Your task to perform on an android device: Open Google Chrome and open the bookmarks view Image 0: 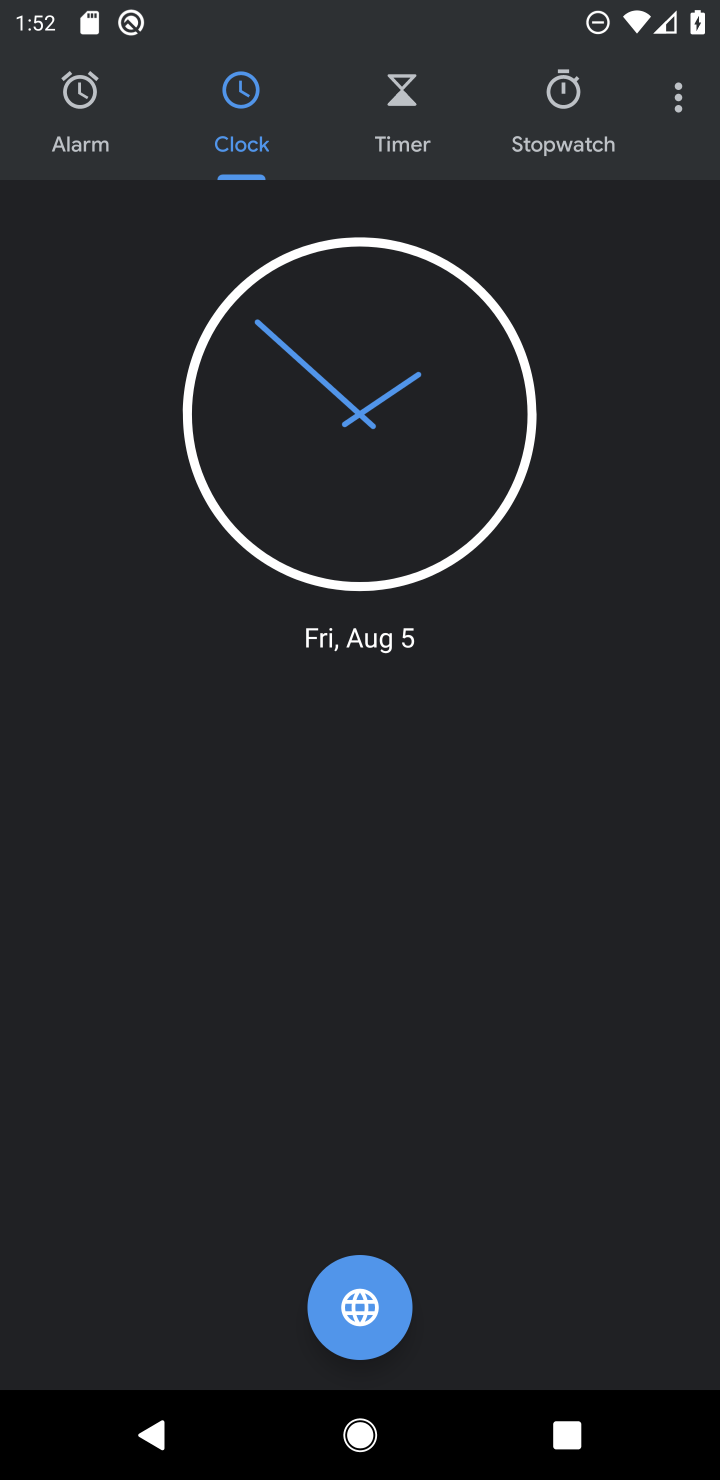
Step 0: press home button
Your task to perform on an android device: Open Google Chrome and open the bookmarks view Image 1: 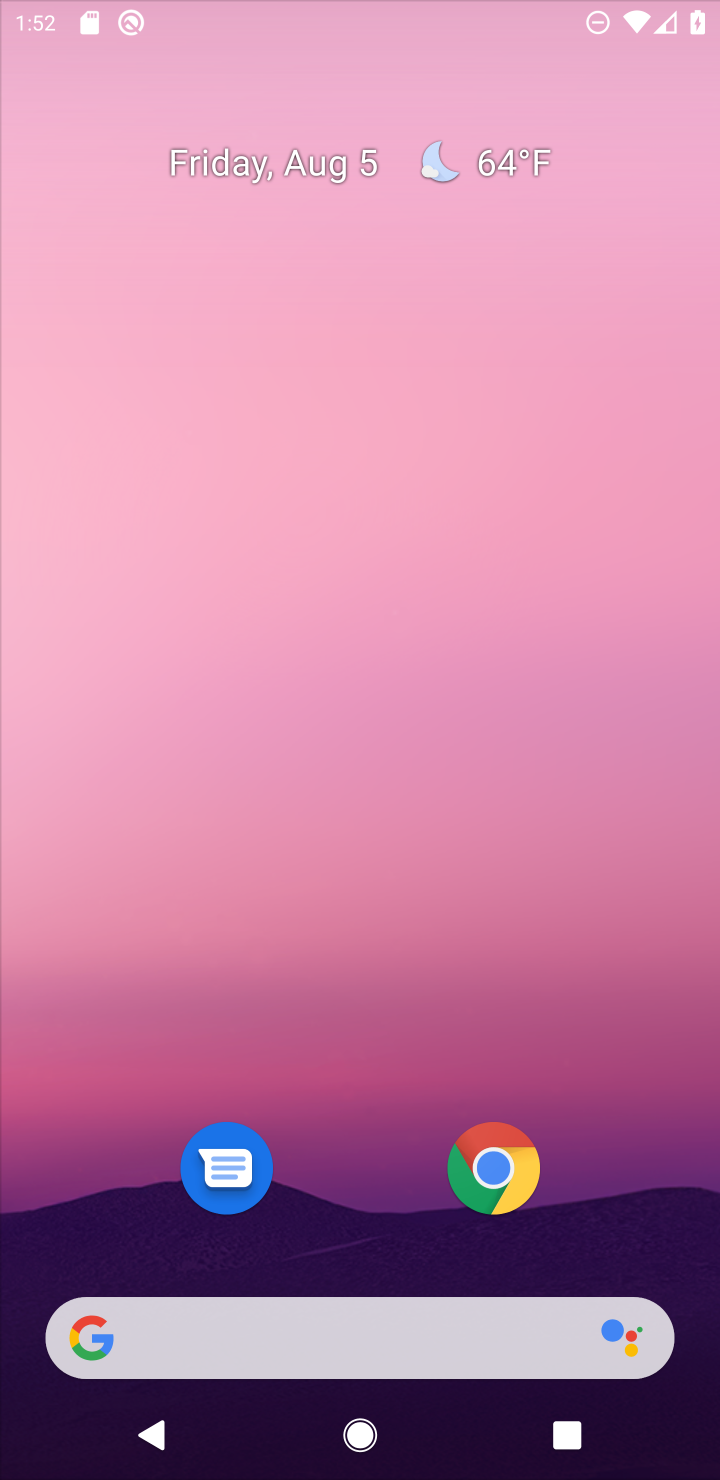
Step 1: drag from (656, 793) to (489, 30)
Your task to perform on an android device: Open Google Chrome and open the bookmarks view Image 2: 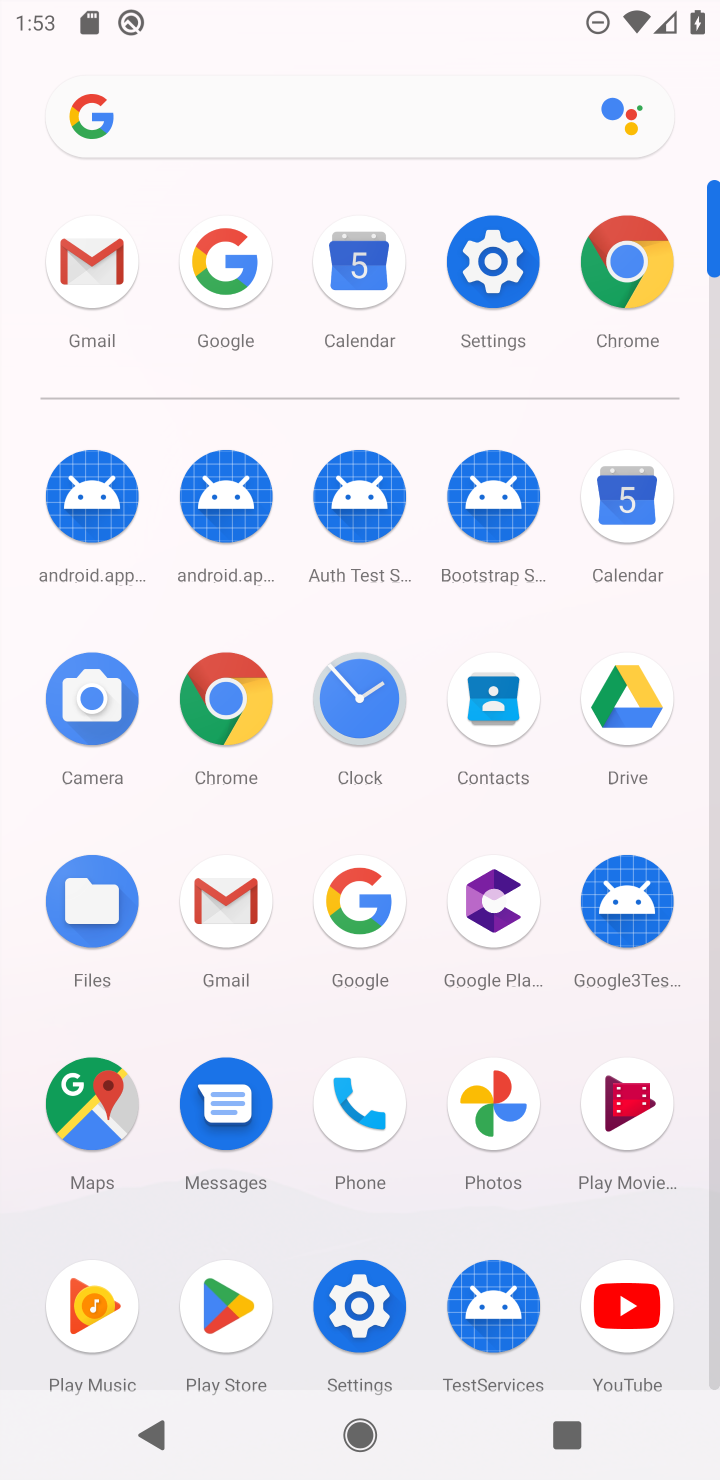
Step 2: click (226, 697)
Your task to perform on an android device: Open Google Chrome and open the bookmarks view Image 3: 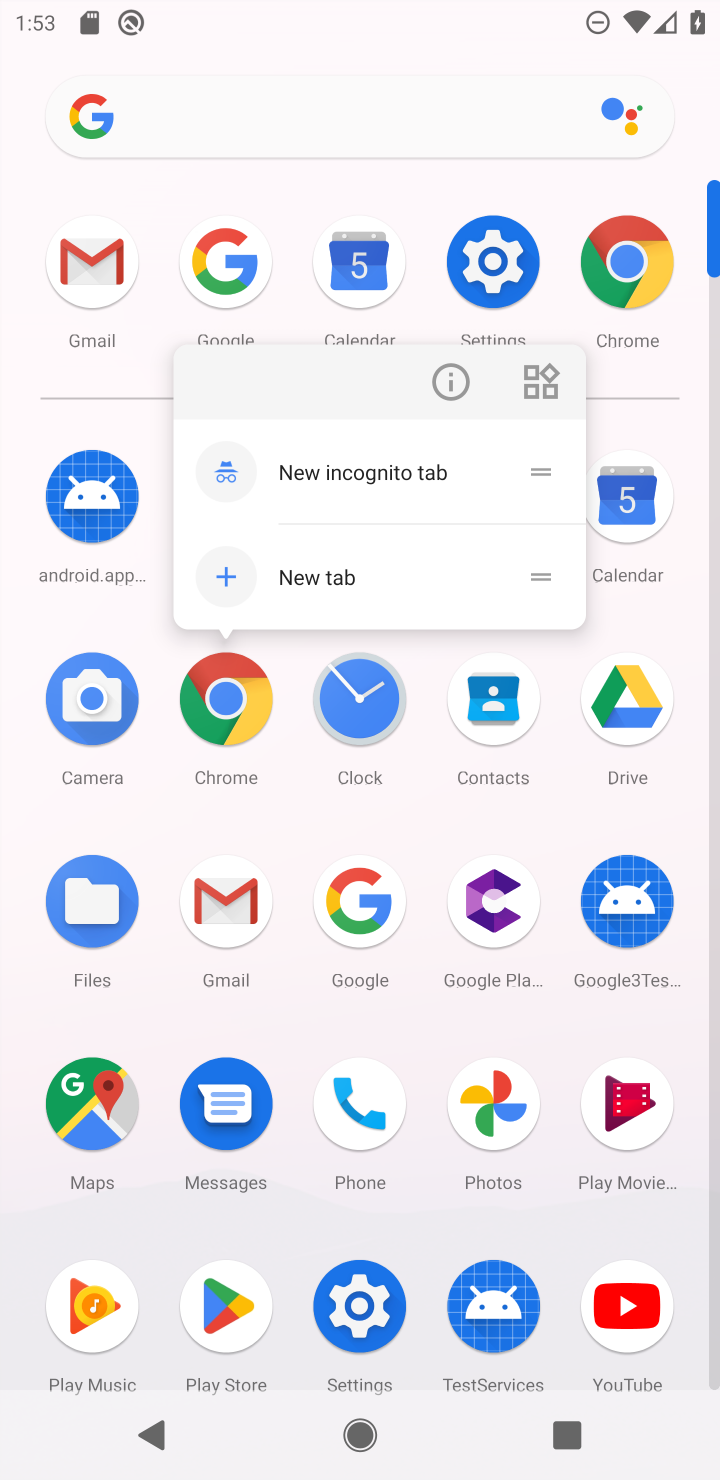
Step 3: click (226, 697)
Your task to perform on an android device: Open Google Chrome and open the bookmarks view Image 4: 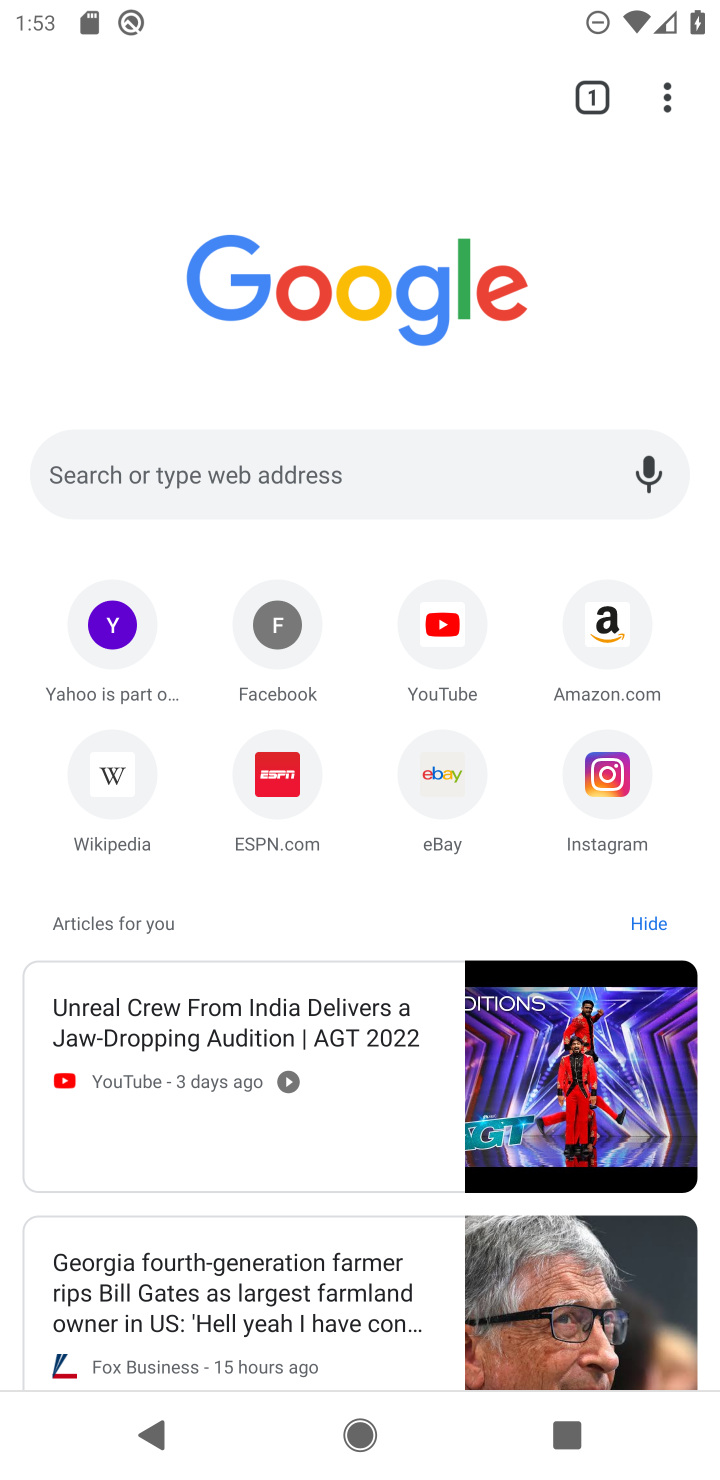
Step 4: click (665, 93)
Your task to perform on an android device: Open Google Chrome and open the bookmarks view Image 5: 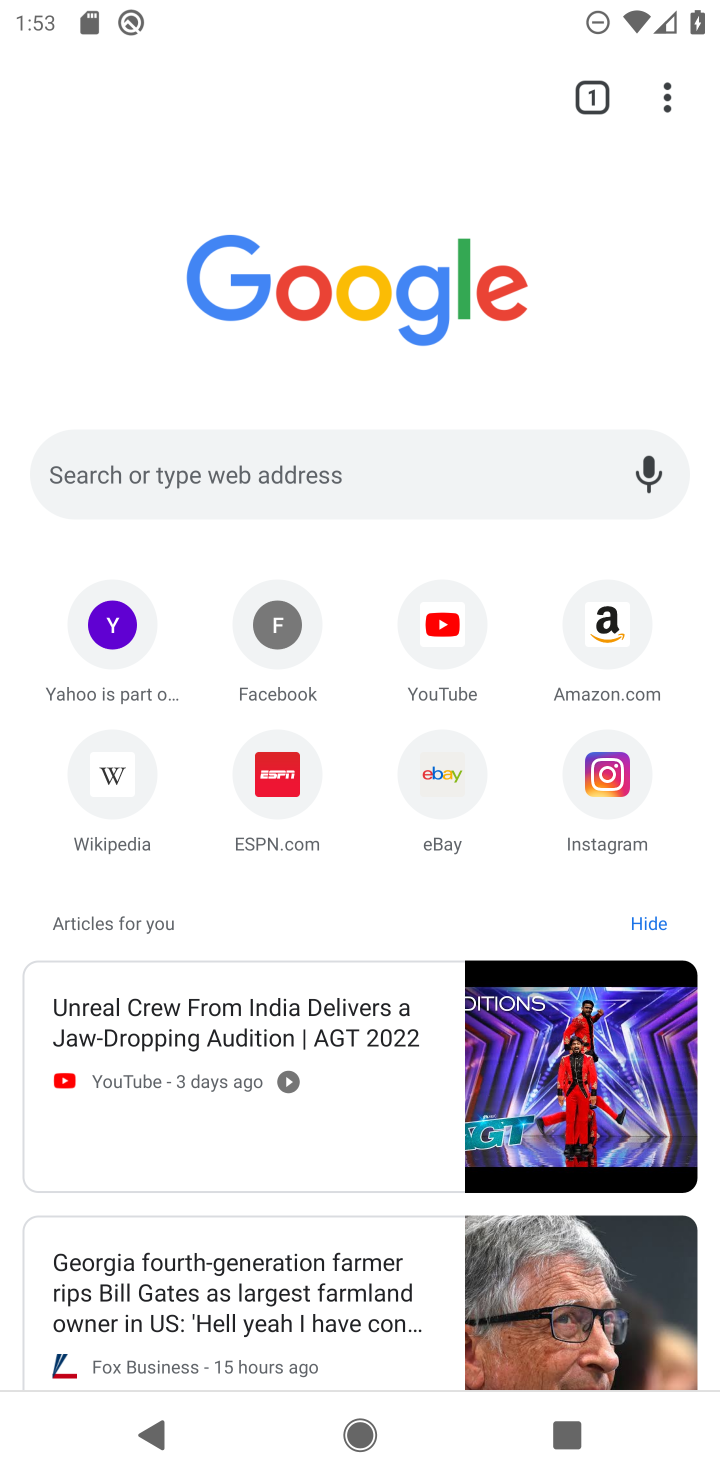
Step 5: click (665, 93)
Your task to perform on an android device: Open Google Chrome and open the bookmarks view Image 6: 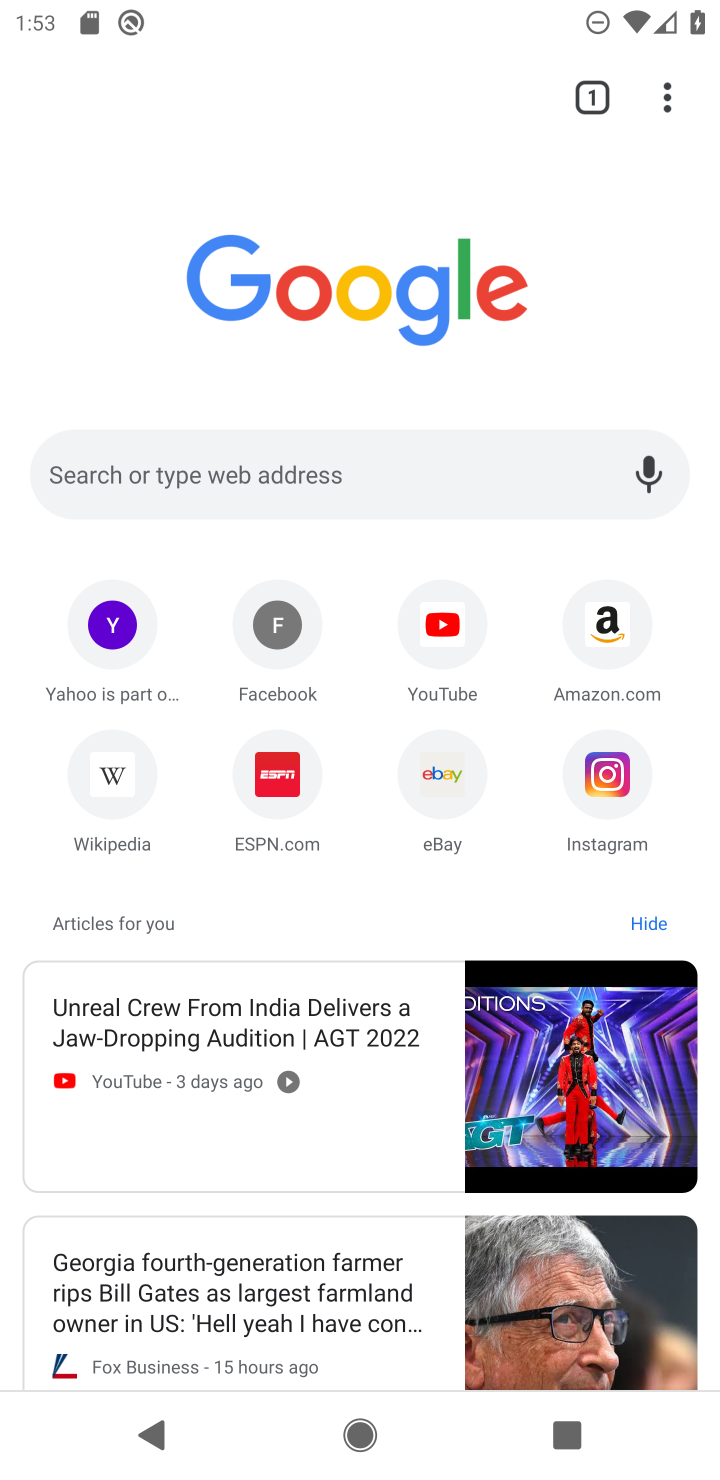
Step 6: click (673, 87)
Your task to perform on an android device: Open Google Chrome and open the bookmarks view Image 7: 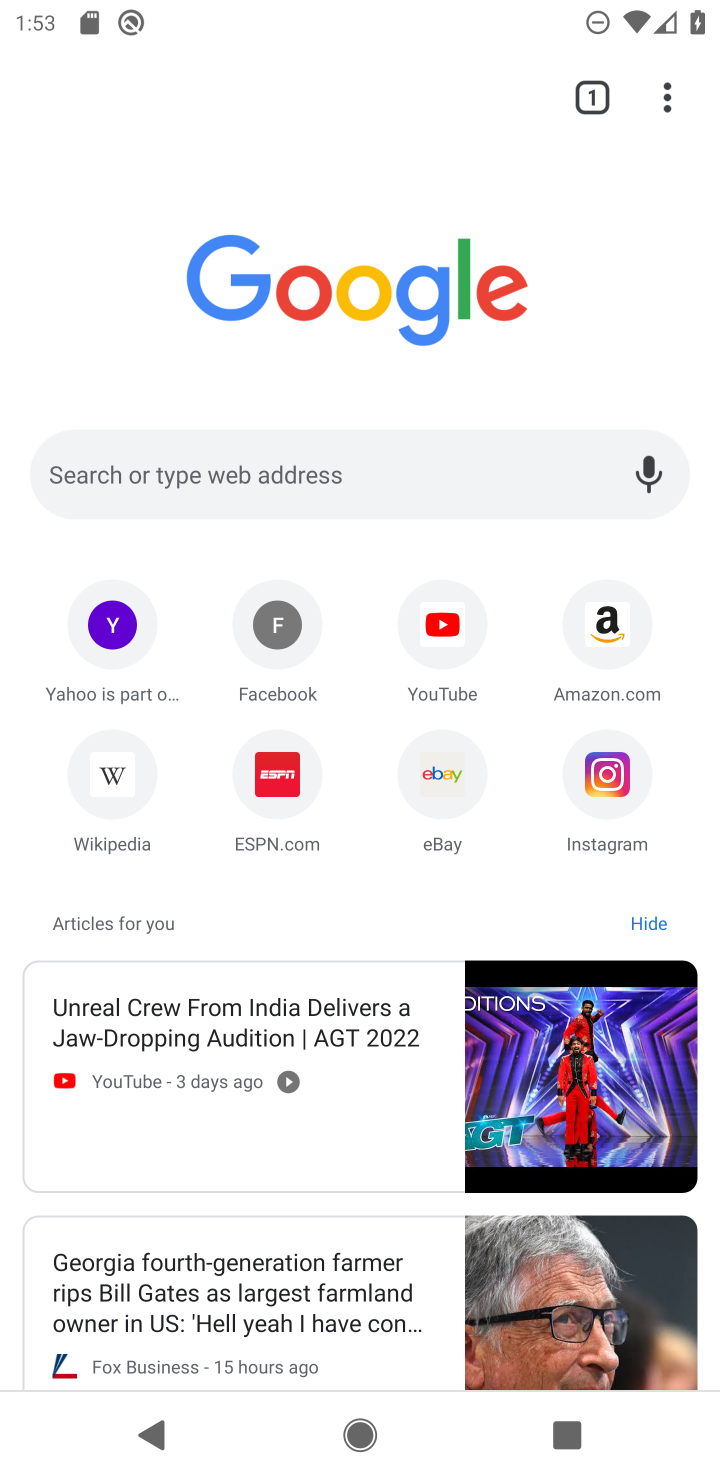
Step 7: click (673, 87)
Your task to perform on an android device: Open Google Chrome and open the bookmarks view Image 8: 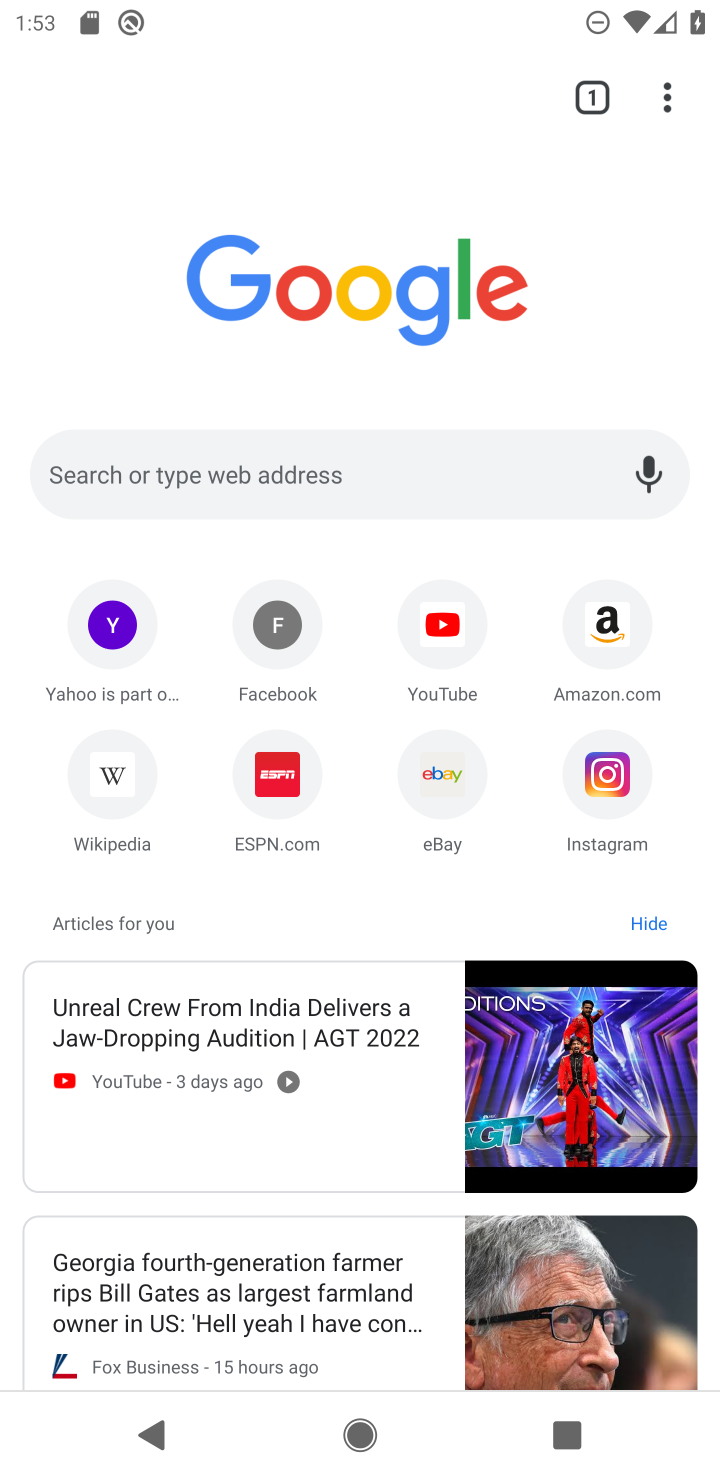
Step 8: click (662, 90)
Your task to perform on an android device: Open Google Chrome and open the bookmarks view Image 9: 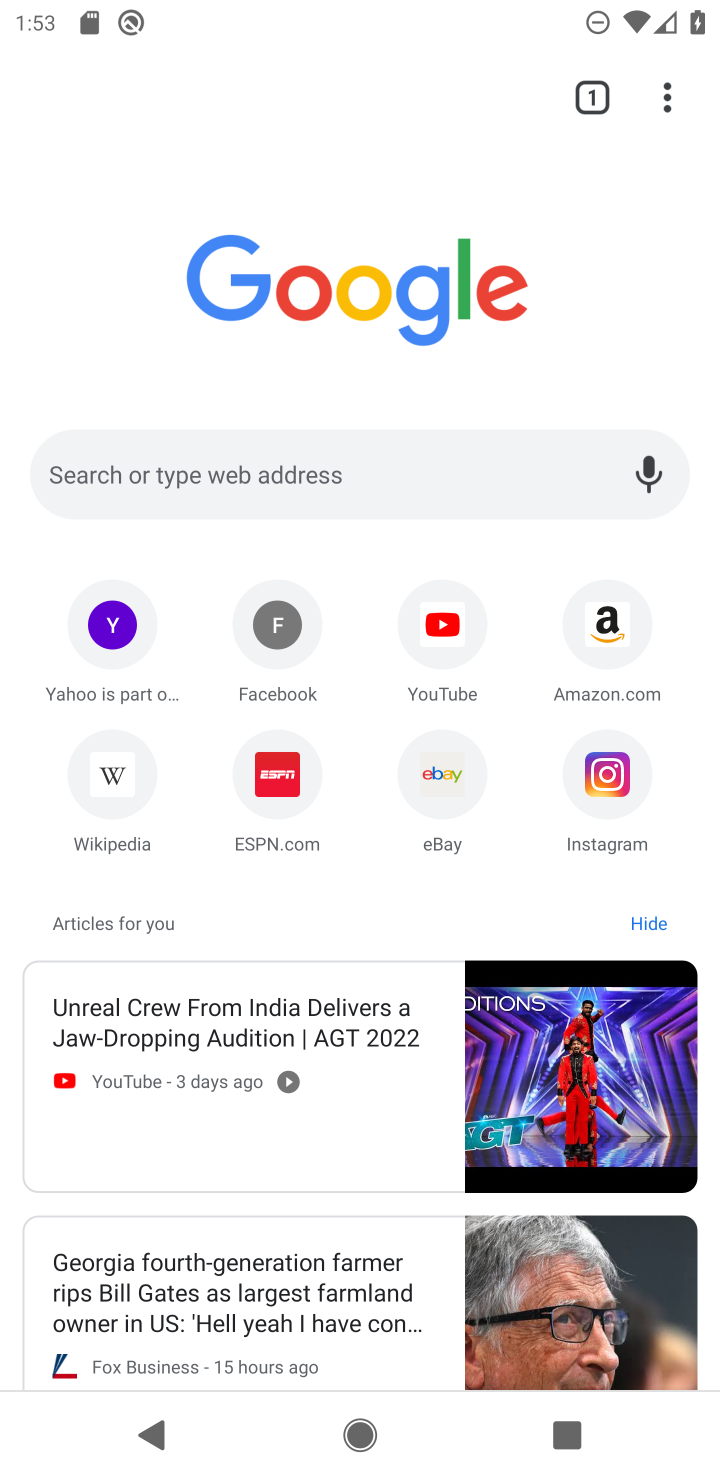
Step 9: click (666, 93)
Your task to perform on an android device: Open Google Chrome and open the bookmarks view Image 10: 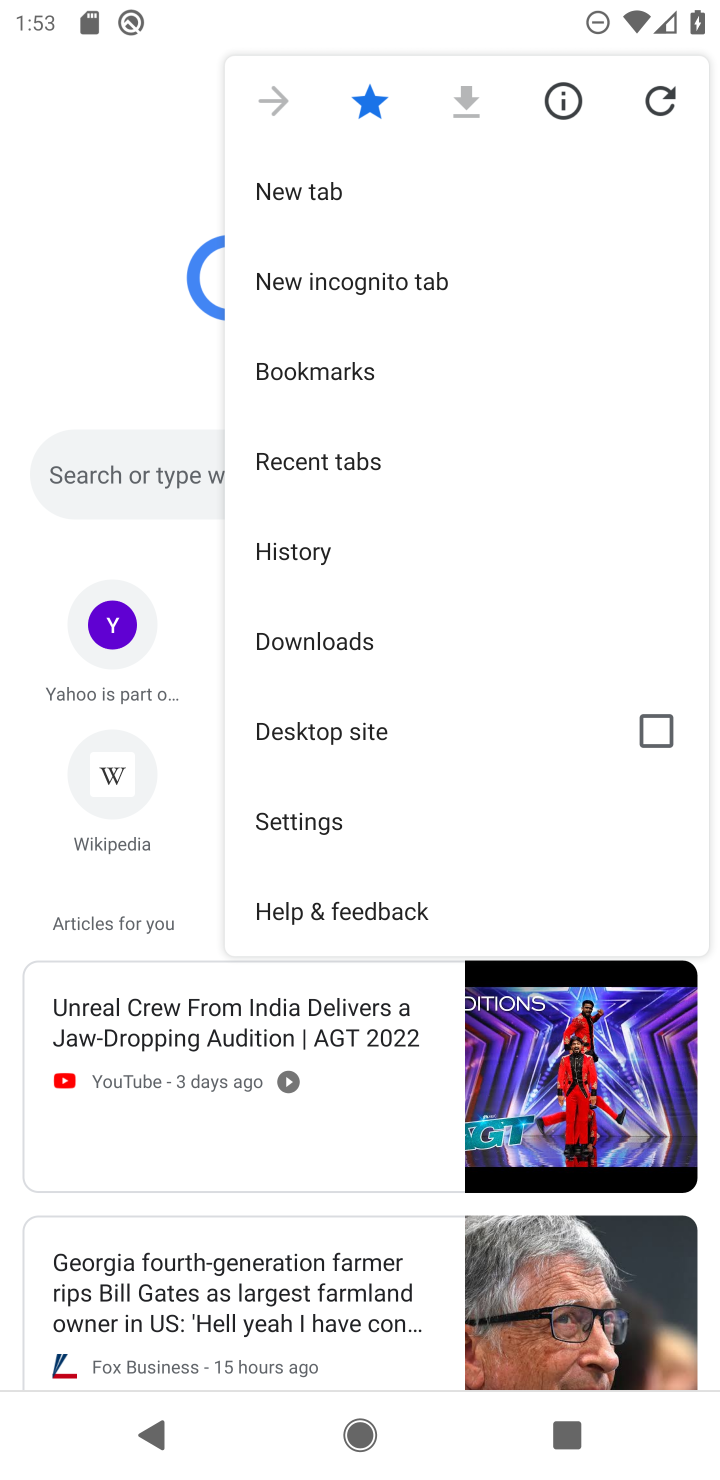
Step 10: click (398, 359)
Your task to perform on an android device: Open Google Chrome and open the bookmarks view Image 11: 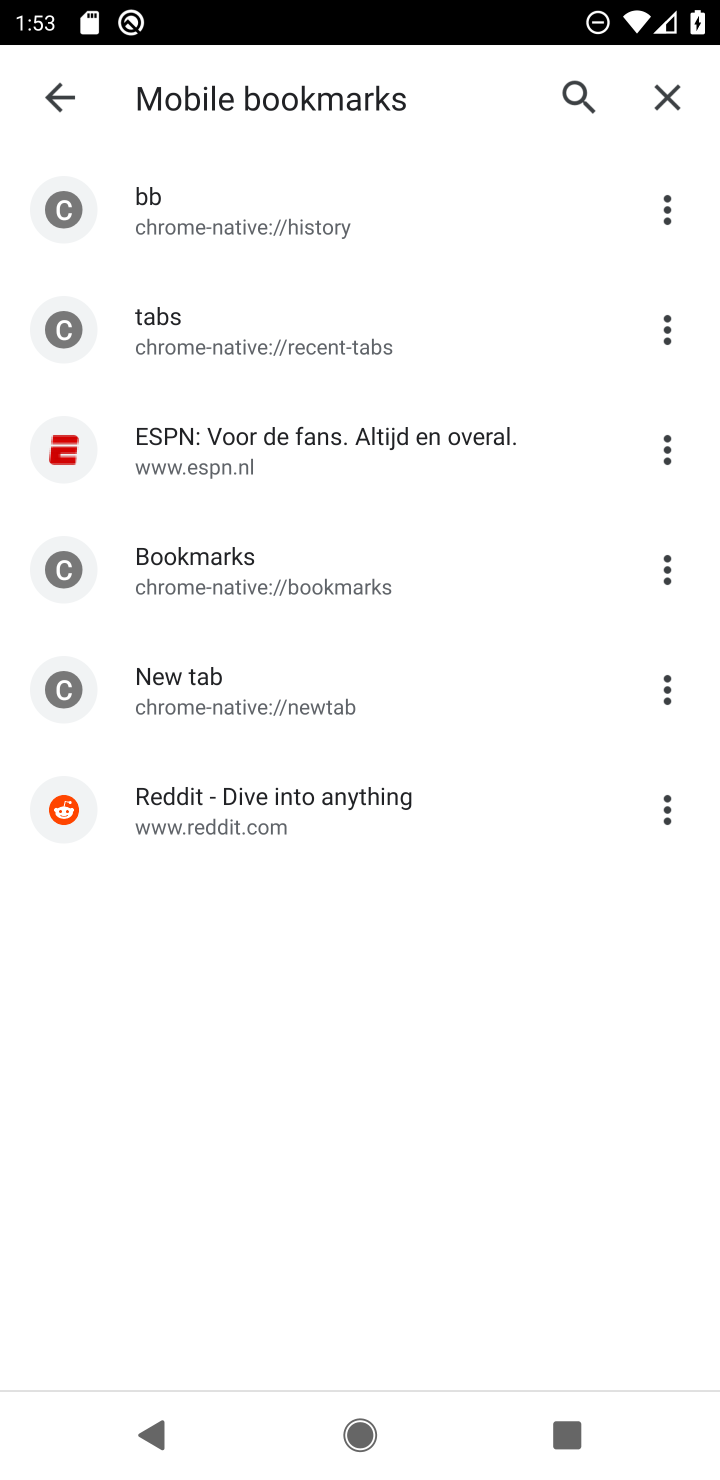
Step 11: task complete